Your task to perform on an android device: What's the weather today? Image 0: 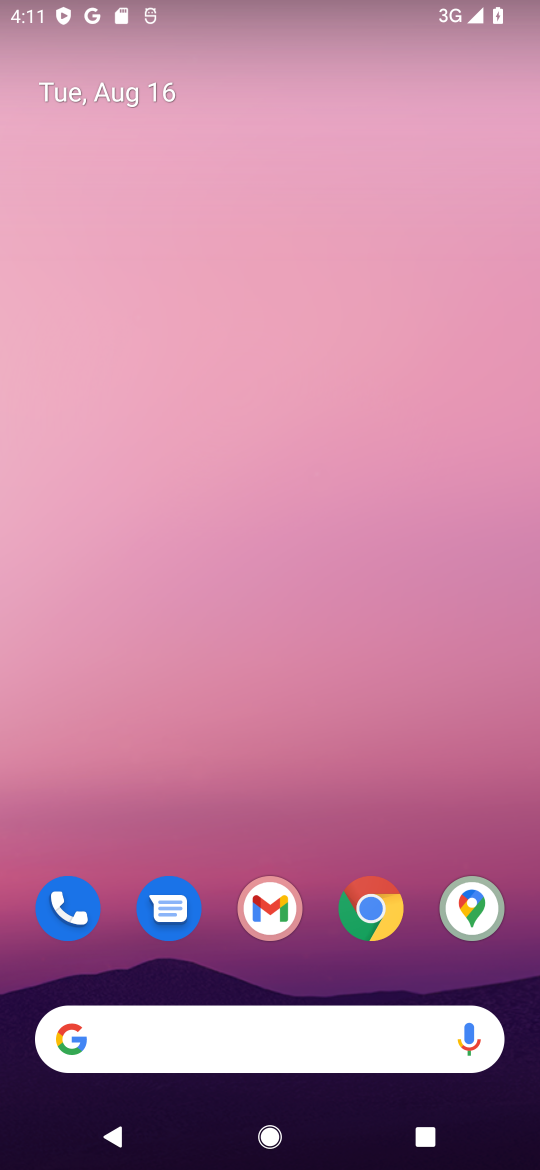
Step 0: click (234, 1041)
Your task to perform on an android device: What's the weather today? Image 1: 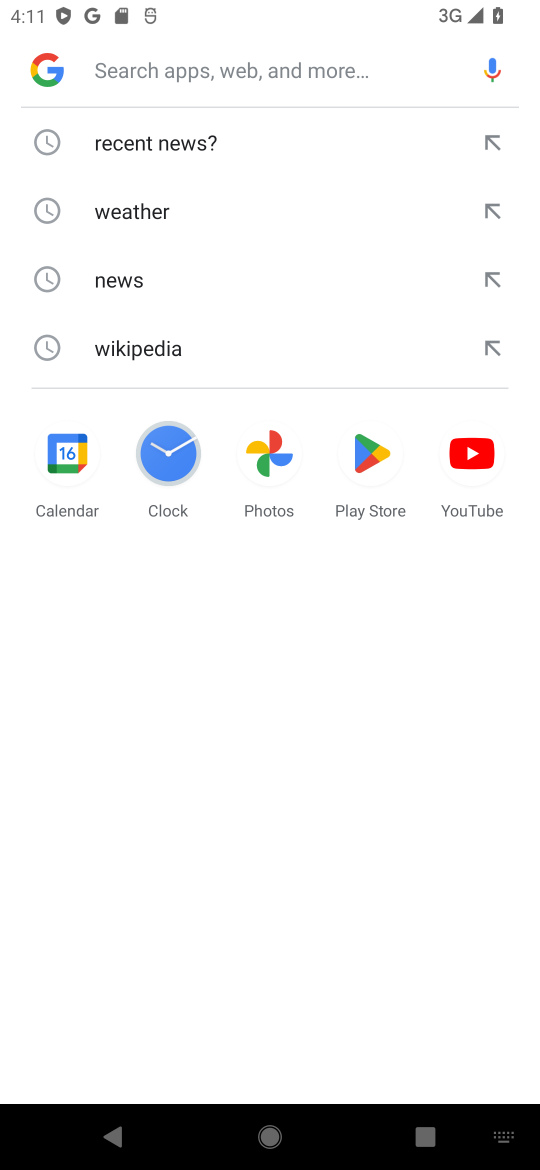
Step 1: click (150, 215)
Your task to perform on an android device: What's the weather today? Image 2: 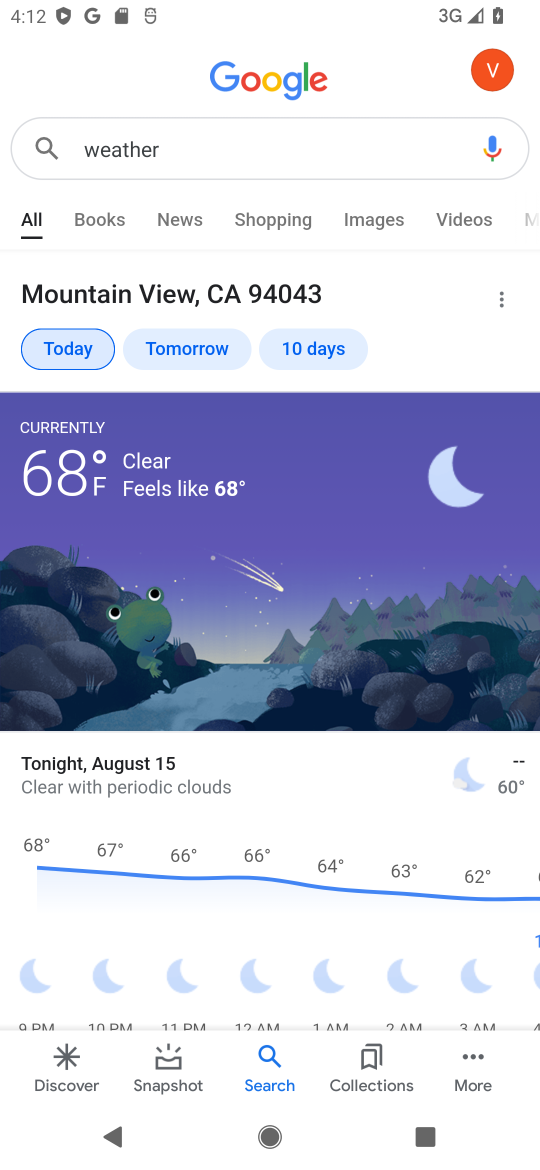
Step 2: click (68, 352)
Your task to perform on an android device: What's the weather today? Image 3: 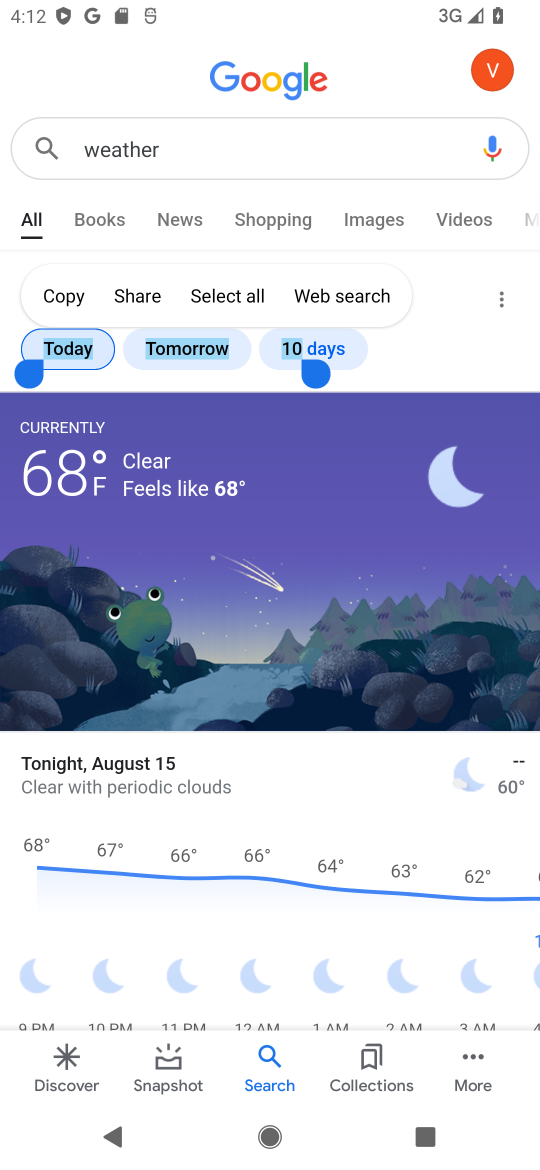
Step 3: task complete